Your task to perform on an android device: turn off translation in the chrome app Image 0: 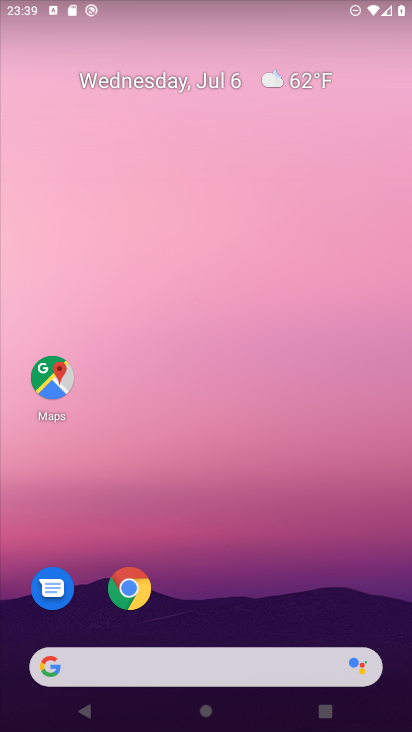
Step 0: click (129, 586)
Your task to perform on an android device: turn off translation in the chrome app Image 1: 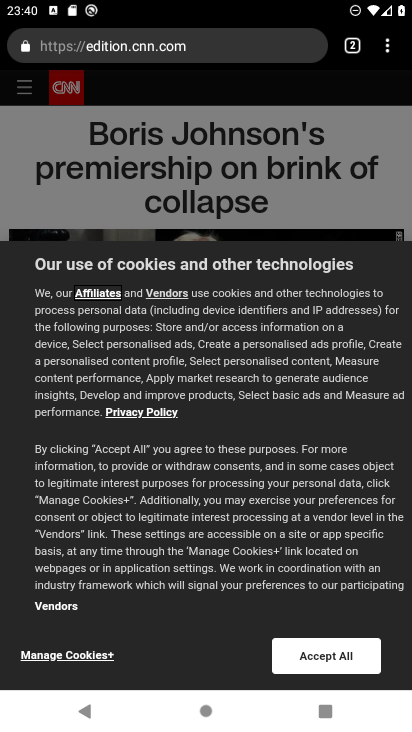
Step 1: click (387, 49)
Your task to perform on an android device: turn off translation in the chrome app Image 2: 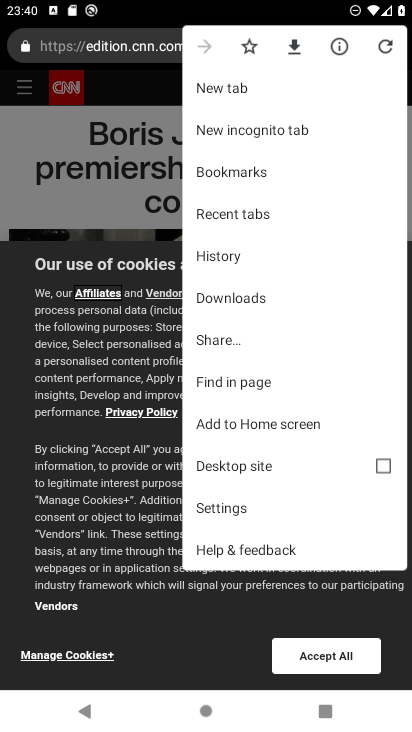
Step 2: click (218, 506)
Your task to perform on an android device: turn off translation in the chrome app Image 3: 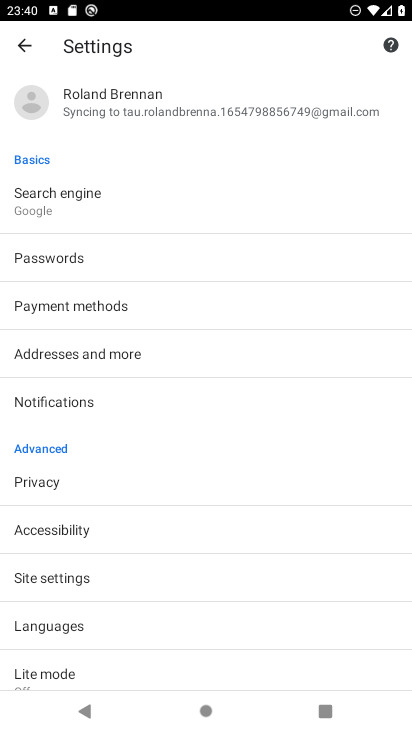
Step 3: drag from (126, 634) to (153, 316)
Your task to perform on an android device: turn off translation in the chrome app Image 4: 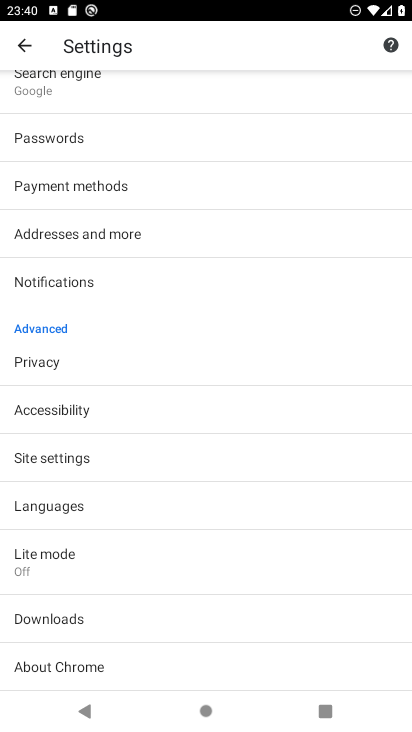
Step 4: click (35, 503)
Your task to perform on an android device: turn off translation in the chrome app Image 5: 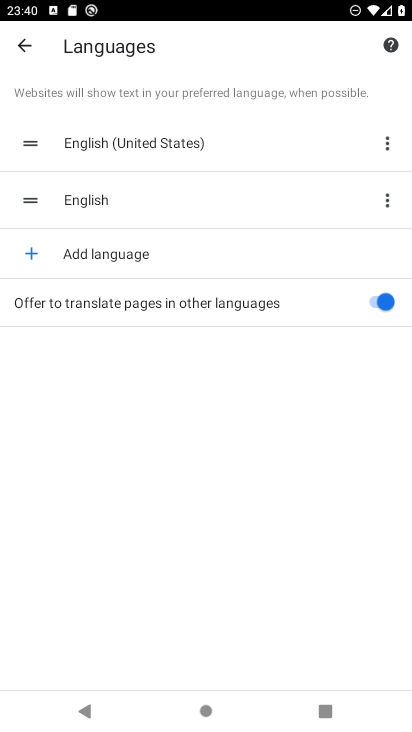
Step 5: click (374, 298)
Your task to perform on an android device: turn off translation in the chrome app Image 6: 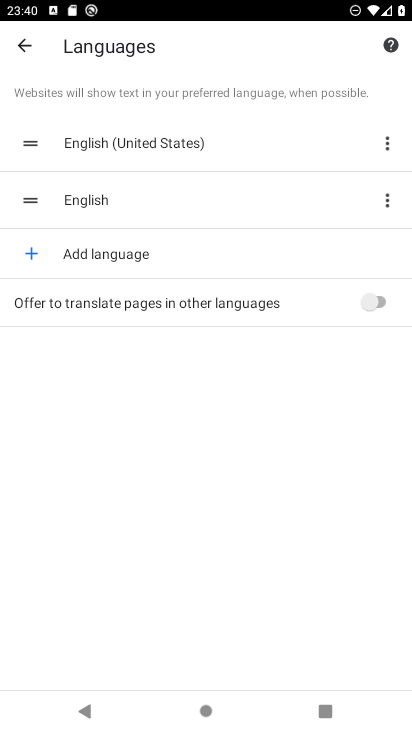
Step 6: task complete